Your task to perform on an android device: Go to Google Image 0: 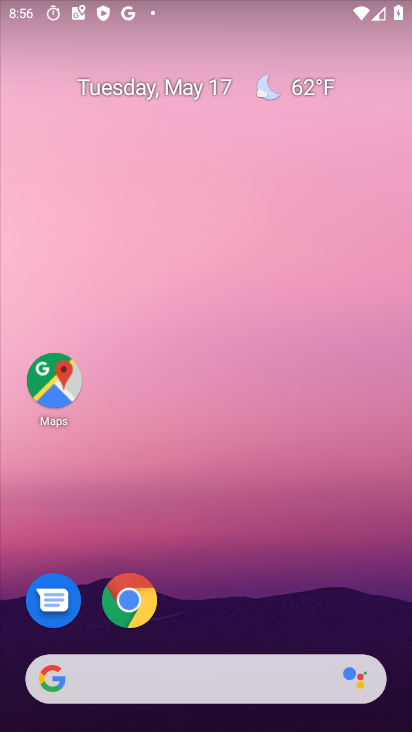
Step 0: drag from (219, 728) to (214, 261)
Your task to perform on an android device: Go to Google Image 1: 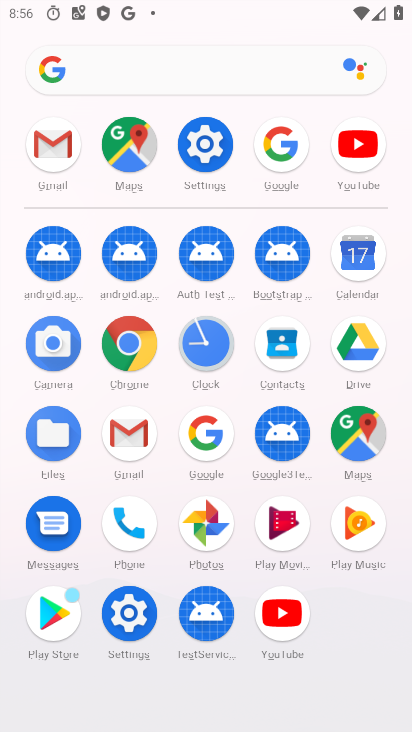
Step 1: click (213, 424)
Your task to perform on an android device: Go to Google Image 2: 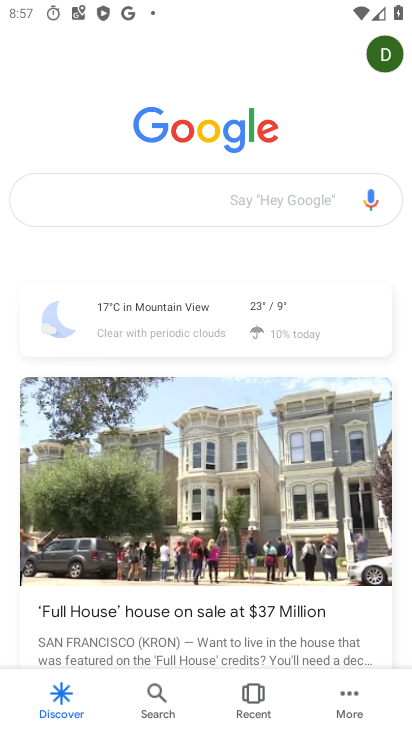
Step 2: task complete